Your task to perform on an android device: Go to Yahoo.com Image 0: 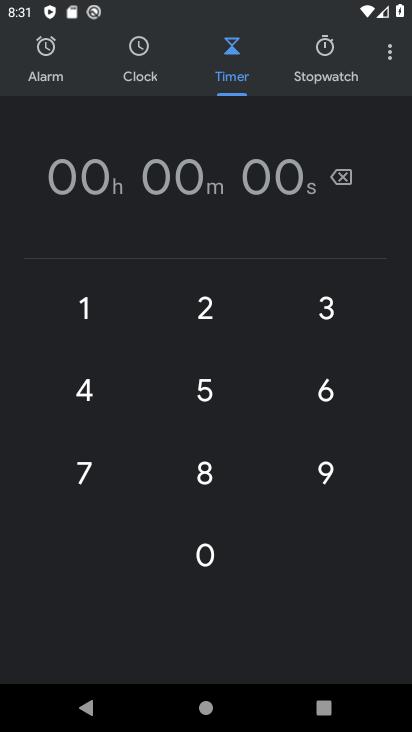
Step 0: press home button
Your task to perform on an android device: Go to Yahoo.com Image 1: 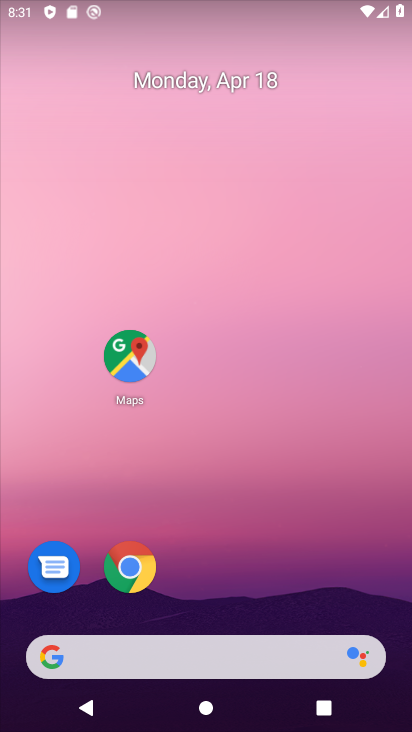
Step 1: click (138, 584)
Your task to perform on an android device: Go to Yahoo.com Image 2: 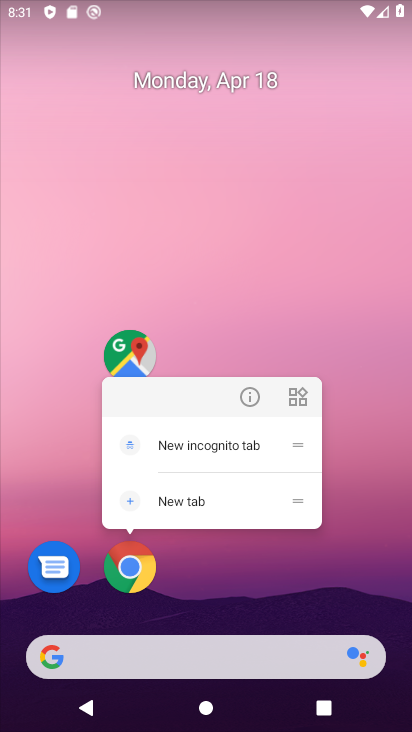
Step 2: drag from (189, 670) to (313, 91)
Your task to perform on an android device: Go to Yahoo.com Image 3: 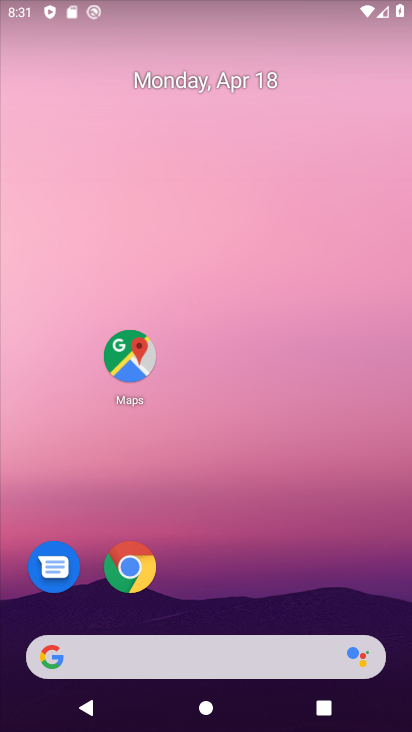
Step 3: drag from (270, 674) to (279, 178)
Your task to perform on an android device: Go to Yahoo.com Image 4: 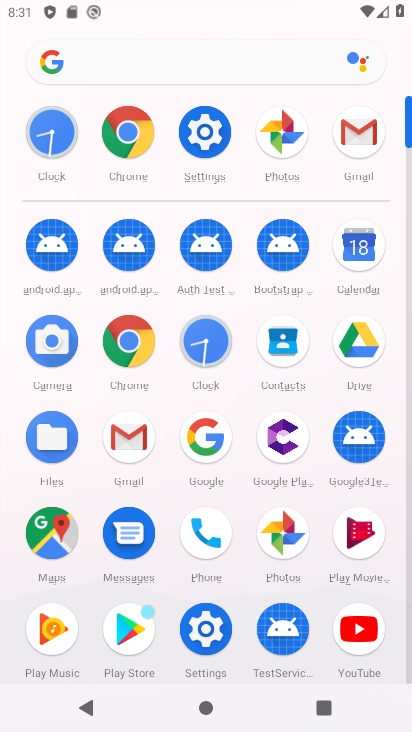
Step 4: click (121, 151)
Your task to perform on an android device: Go to Yahoo.com Image 5: 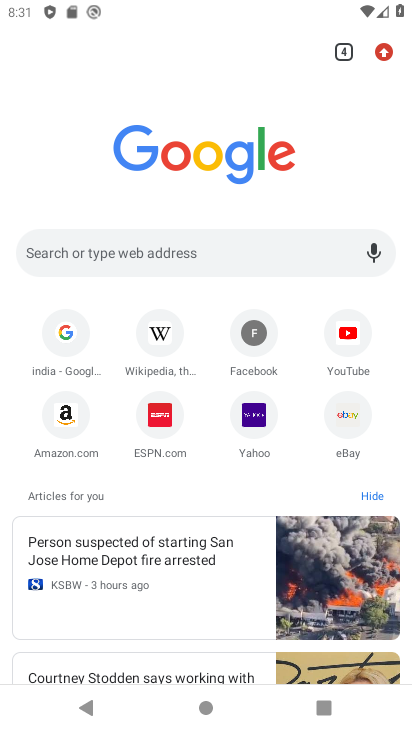
Step 5: click (245, 418)
Your task to perform on an android device: Go to Yahoo.com Image 6: 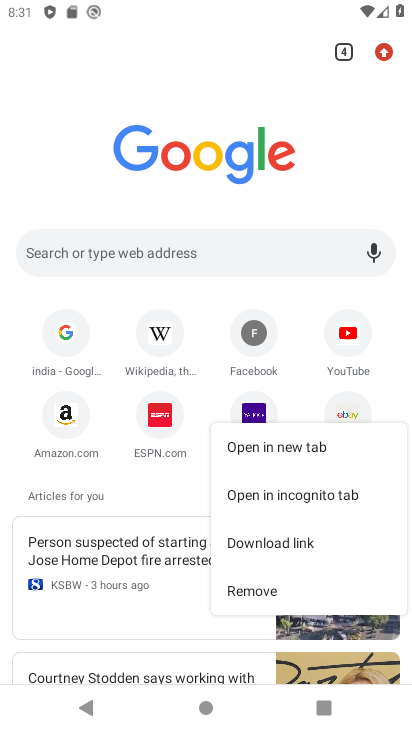
Step 6: click (253, 406)
Your task to perform on an android device: Go to Yahoo.com Image 7: 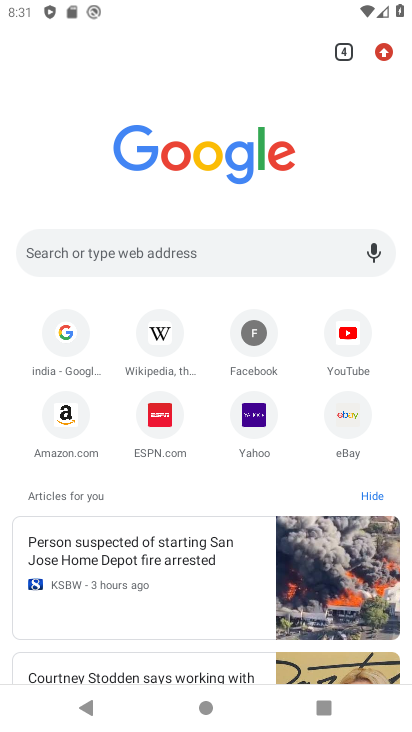
Step 7: click (251, 417)
Your task to perform on an android device: Go to Yahoo.com Image 8: 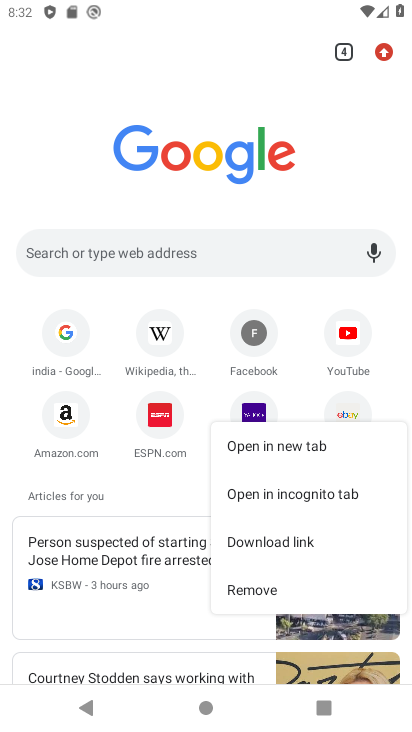
Step 8: click (273, 445)
Your task to perform on an android device: Go to Yahoo.com Image 9: 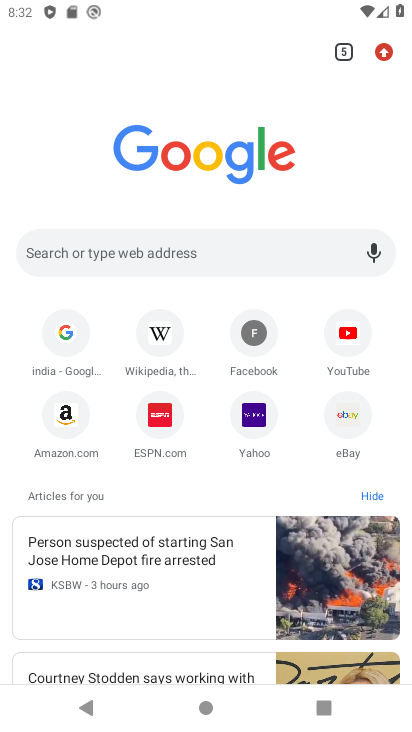
Step 9: click (239, 410)
Your task to perform on an android device: Go to Yahoo.com Image 10: 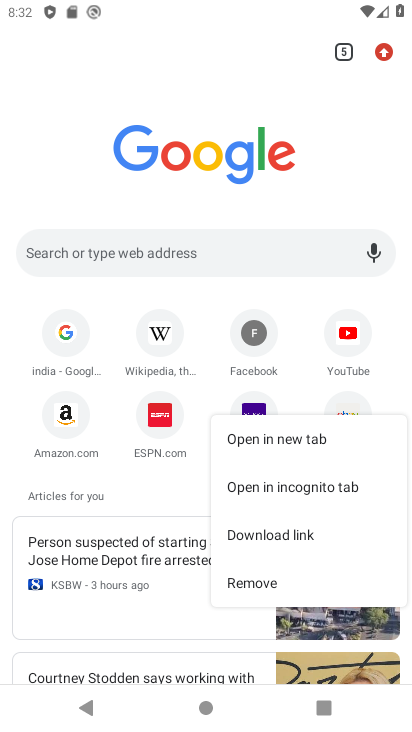
Step 10: click (246, 394)
Your task to perform on an android device: Go to Yahoo.com Image 11: 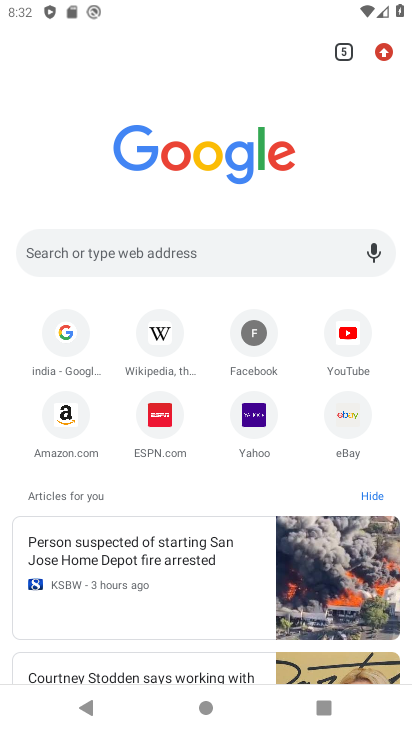
Step 11: click (249, 415)
Your task to perform on an android device: Go to Yahoo.com Image 12: 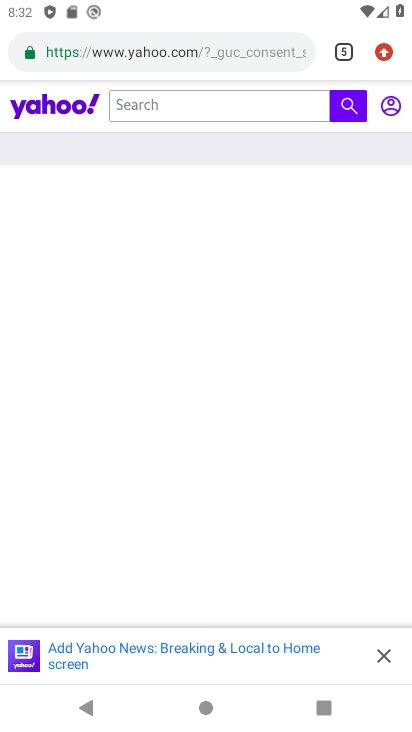
Step 12: task complete